Your task to perform on an android device: turn notification dots on Image 0: 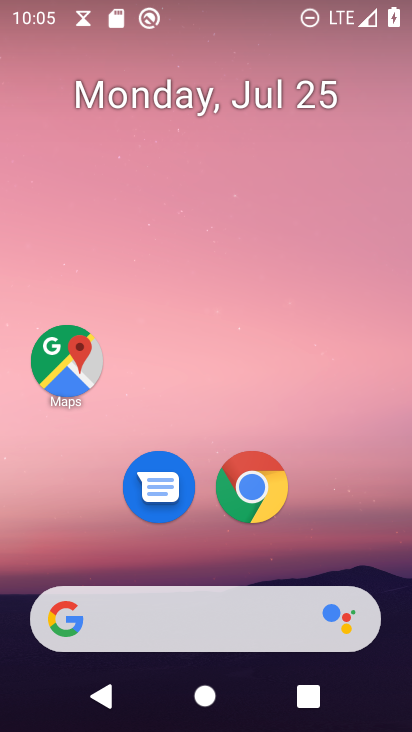
Step 0: drag from (186, 541) to (241, 0)
Your task to perform on an android device: turn notification dots on Image 1: 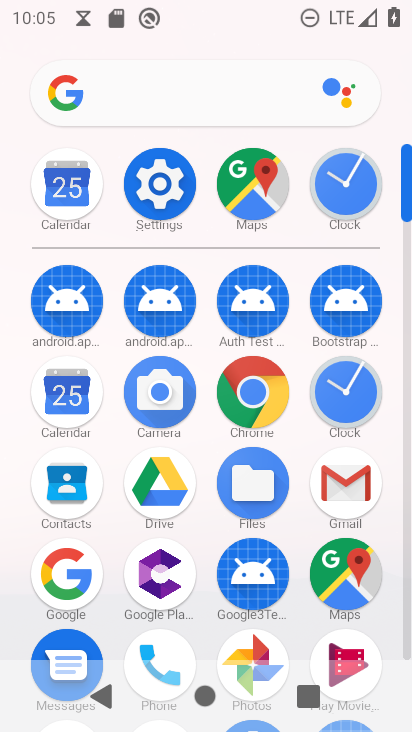
Step 1: click (157, 177)
Your task to perform on an android device: turn notification dots on Image 2: 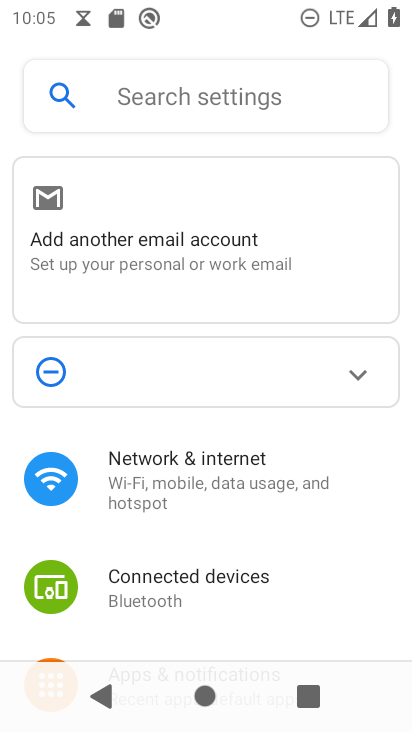
Step 2: drag from (179, 580) to (275, 204)
Your task to perform on an android device: turn notification dots on Image 3: 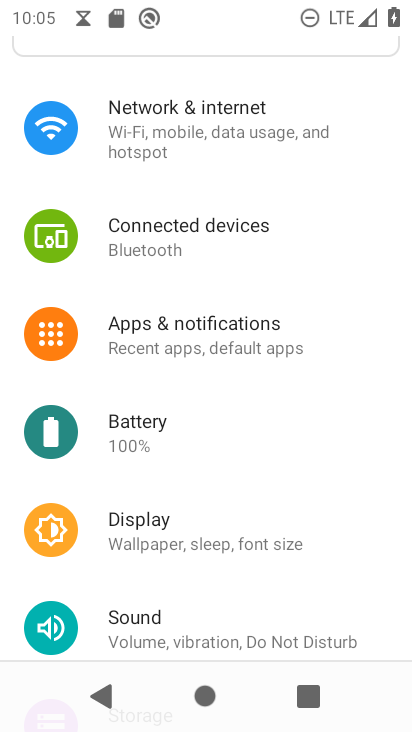
Step 3: click (227, 341)
Your task to perform on an android device: turn notification dots on Image 4: 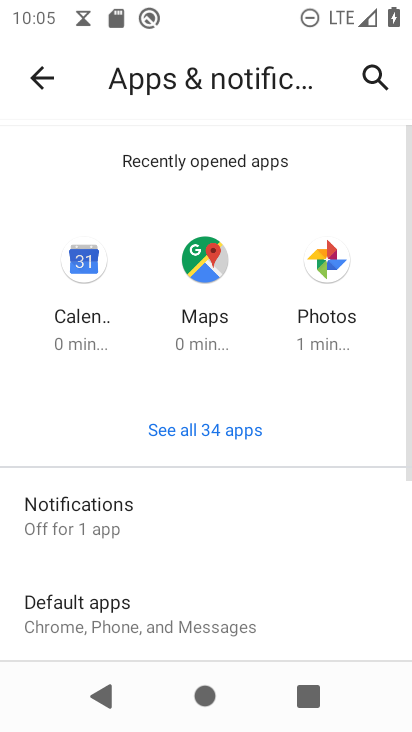
Step 4: click (132, 521)
Your task to perform on an android device: turn notification dots on Image 5: 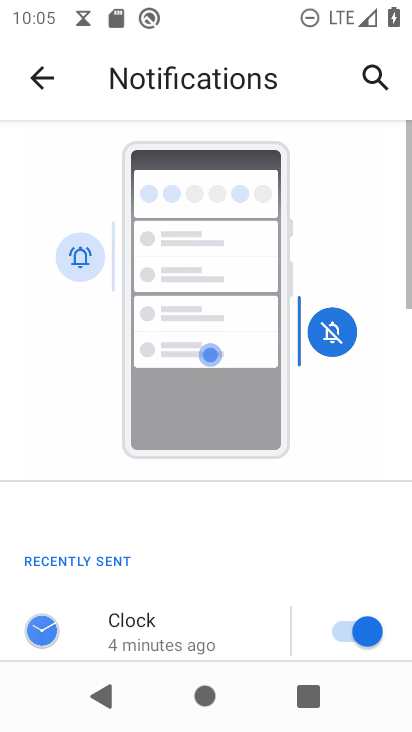
Step 5: drag from (159, 625) to (280, 55)
Your task to perform on an android device: turn notification dots on Image 6: 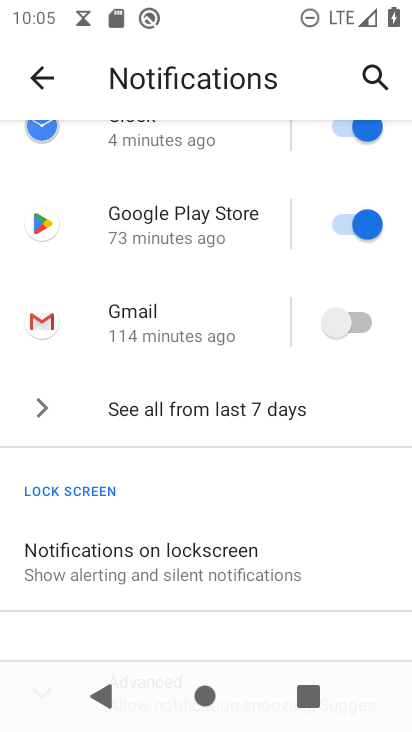
Step 6: drag from (186, 614) to (237, 98)
Your task to perform on an android device: turn notification dots on Image 7: 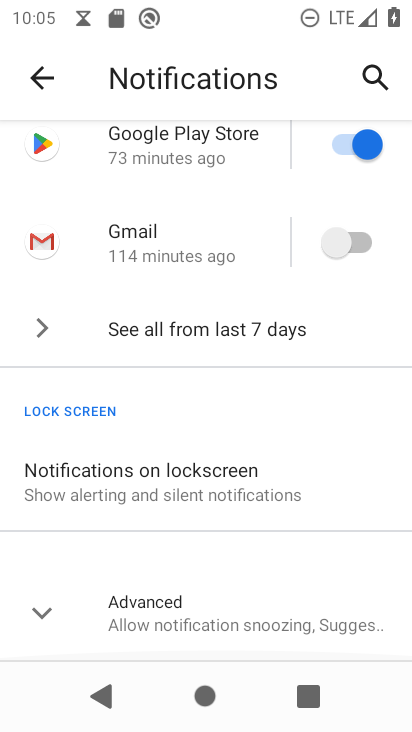
Step 7: click (190, 639)
Your task to perform on an android device: turn notification dots on Image 8: 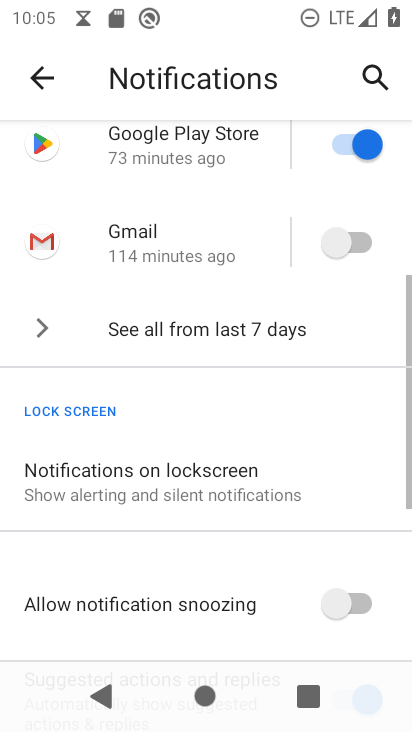
Step 8: task complete